Your task to perform on an android device: see tabs open on other devices in the chrome app Image 0: 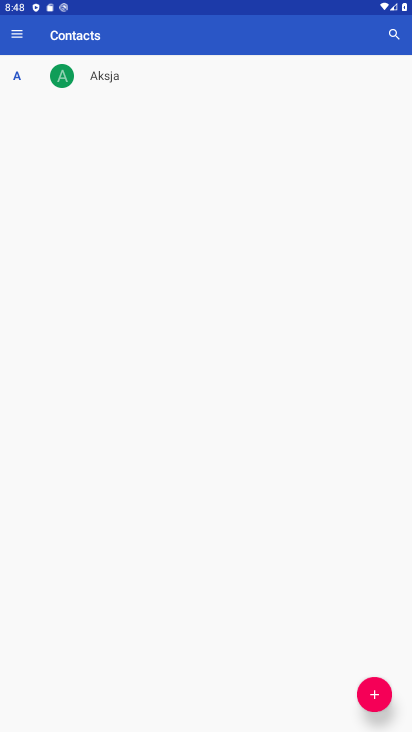
Step 0: press home button
Your task to perform on an android device: see tabs open on other devices in the chrome app Image 1: 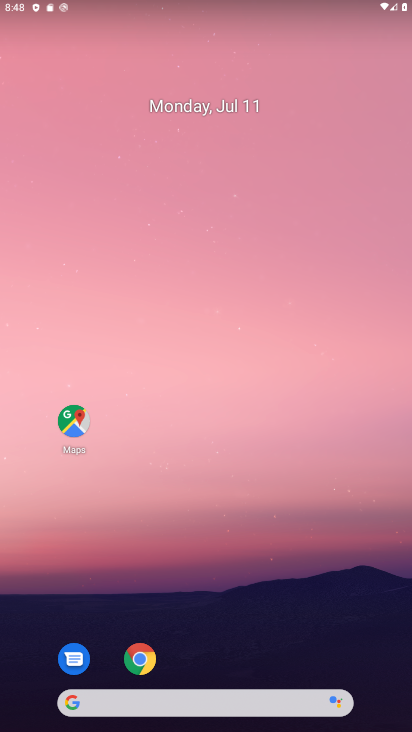
Step 1: click (141, 659)
Your task to perform on an android device: see tabs open on other devices in the chrome app Image 2: 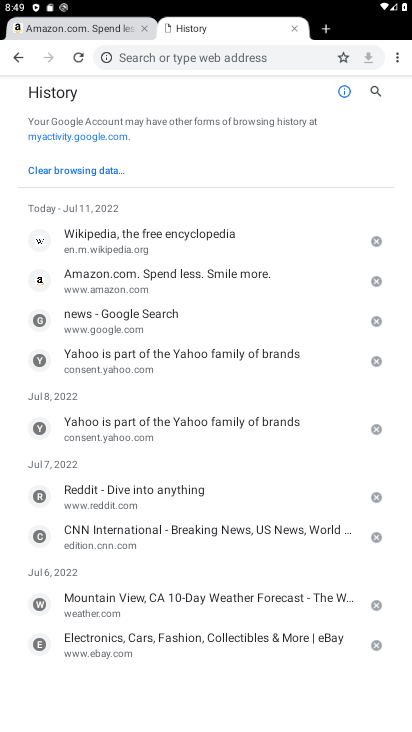
Step 2: click (396, 60)
Your task to perform on an android device: see tabs open on other devices in the chrome app Image 3: 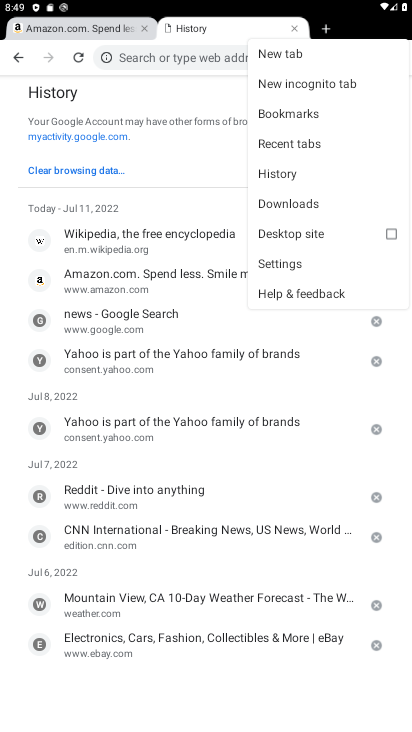
Step 3: click (281, 142)
Your task to perform on an android device: see tabs open on other devices in the chrome app Image 4: 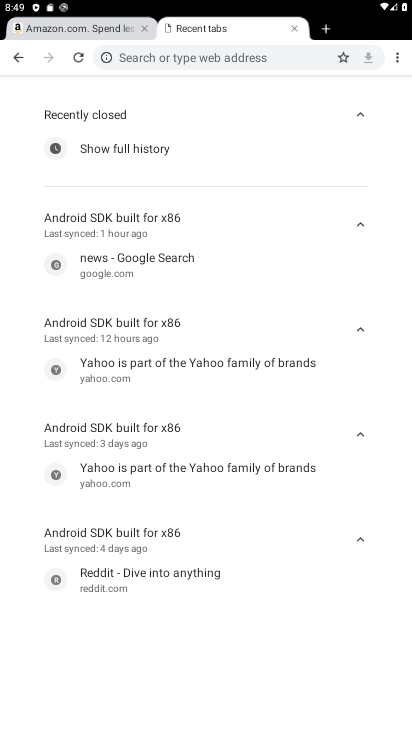
Step 4: task complete